Your task to perform on an android device: Go to CNN.com Image 0: 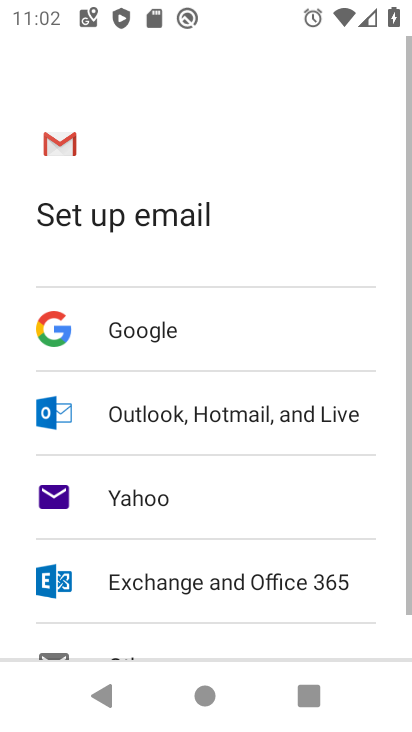
Step 0: press home button
Your task to perform on an android device: Go to CNN.com Image 1: 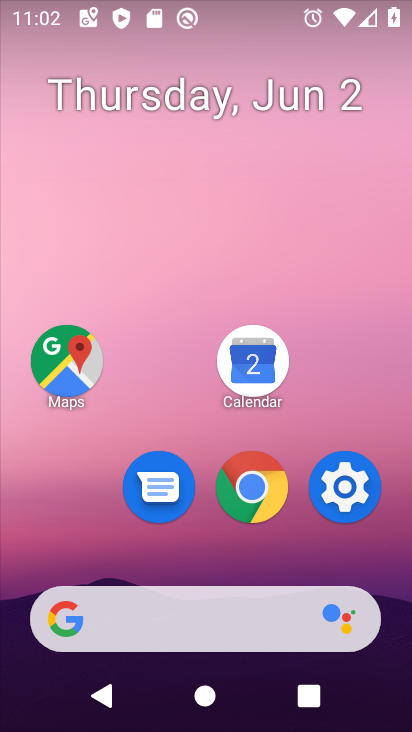
Step 1: click (240, 504)
Your task to perform on an android device: Go to CNN.com Image 2: 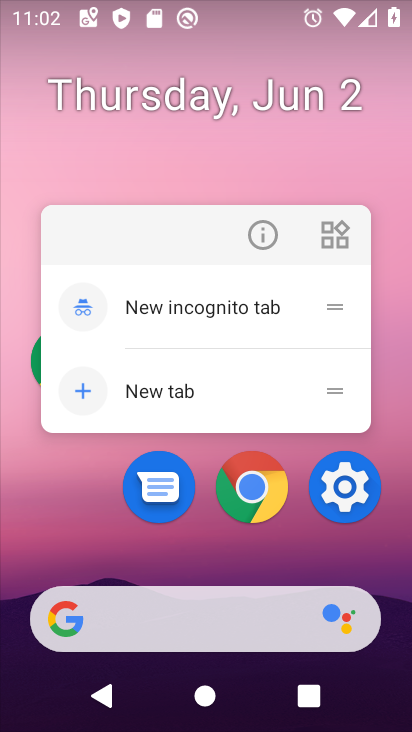
Step 2: click (261, 488)
Your task to perform on an android device: Go to CNN.com Image 3: 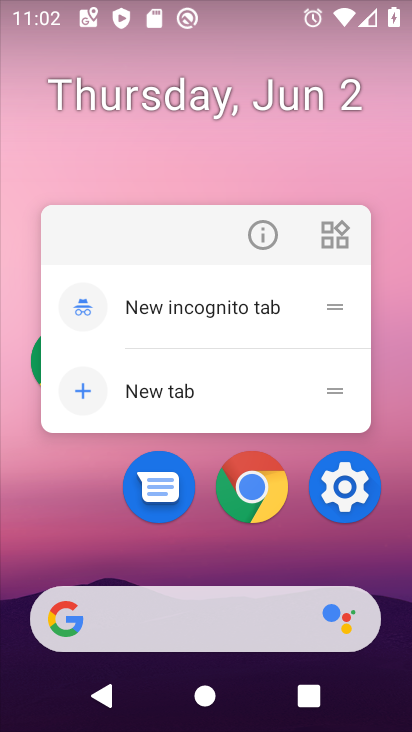
Step 3: click (261, 483)
Your task to perform on an android device: Go to CNN.com Image 4: 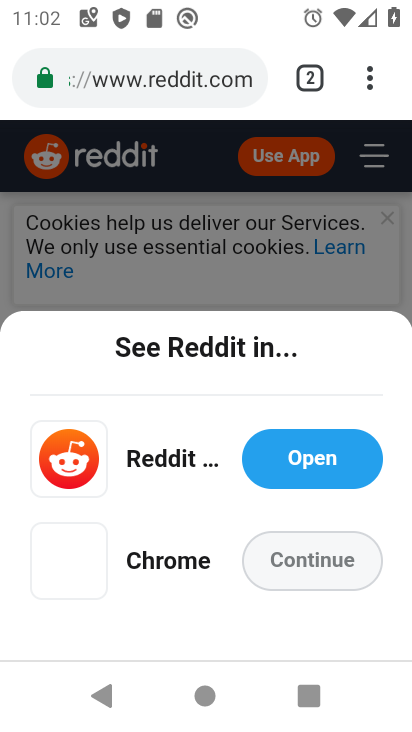
Step 4: click (175, 74)
Your task to perform on an android device: Go to CNN.com Image 5: 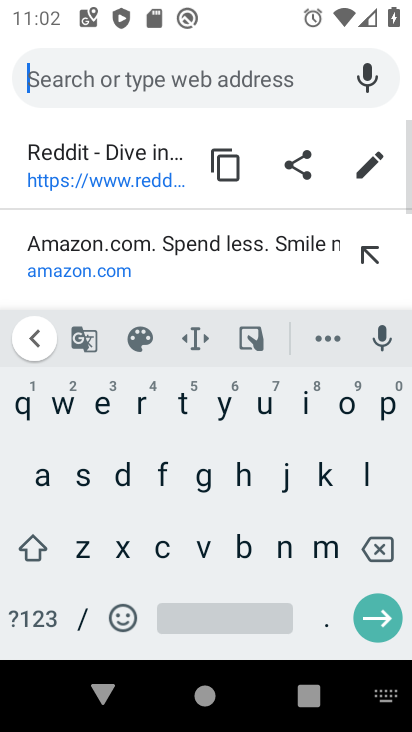
Step 5: click (151, 545)
Your task to perform on an android device: Go to CNN.com Image 6: 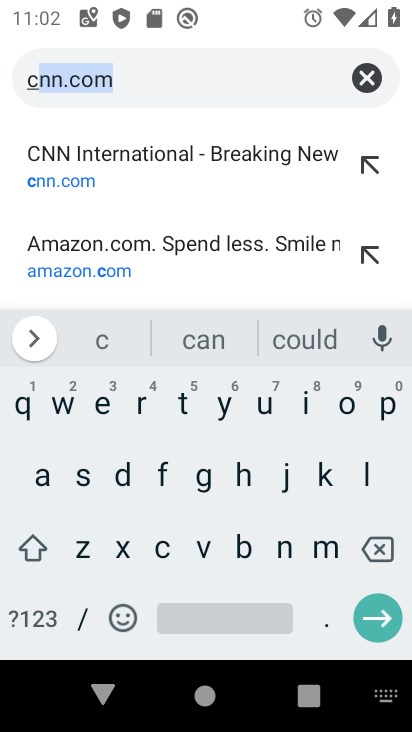
Step 6: click (131, 78)
Your task to perform on an android device: Go to CNN.com Image 7: 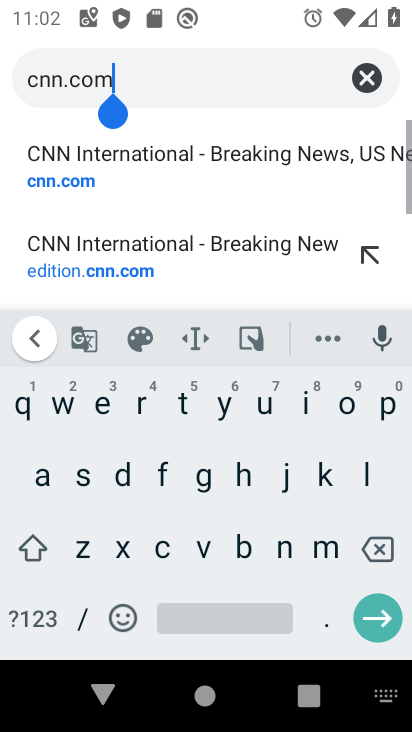
Step 7: click (397, 613)
Your task to perform on an android device: Go to CNN.com Image 8: 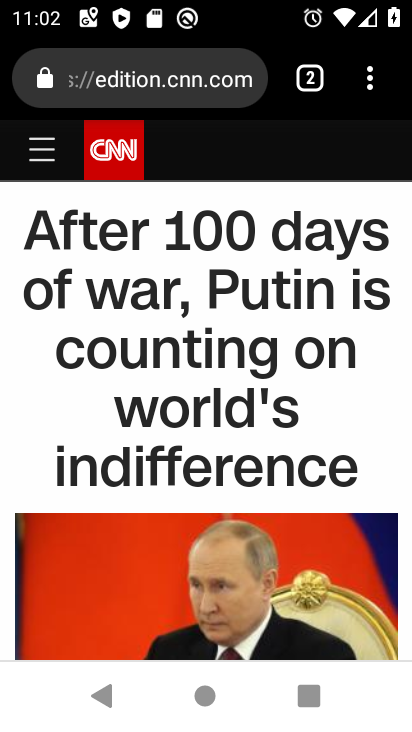
Step 8: task complete